Your task to perform on an android device: Go to display settings Image 0: 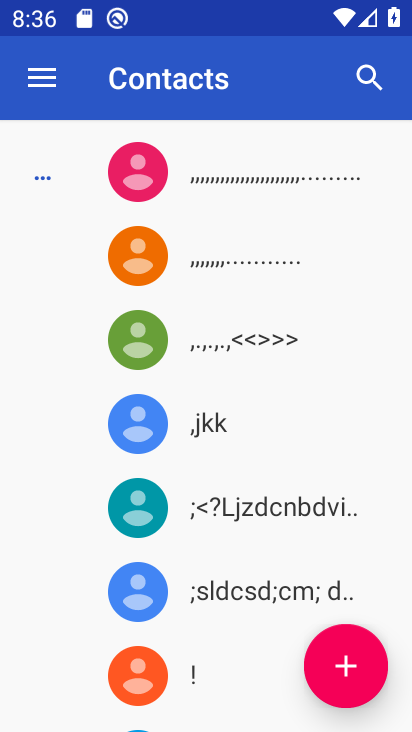
Step 0: press home button
Your task to perform on an android device: Go to display settings Image 1: 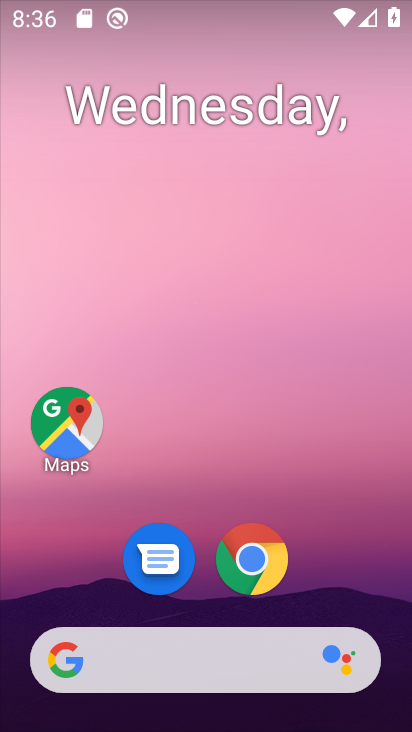
Step 1: drag from (380, 573) to (366, 209)
Your task to perform on an android device: Go to display settings Image 2: 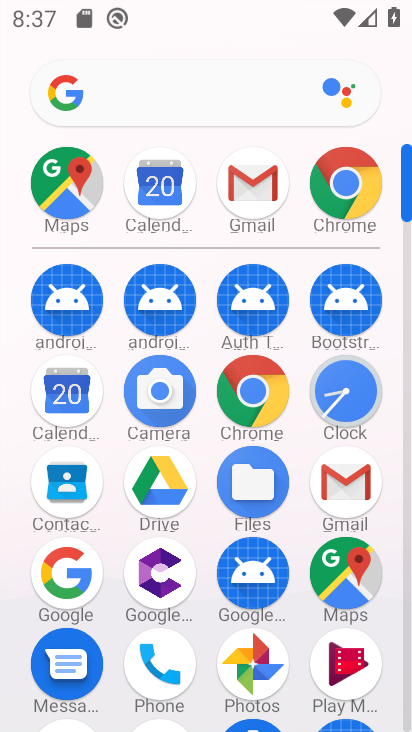
Step 2: drag from (292, 611) to (314, 373)
Your task to perform on an android device: Go to display settings Image 3: 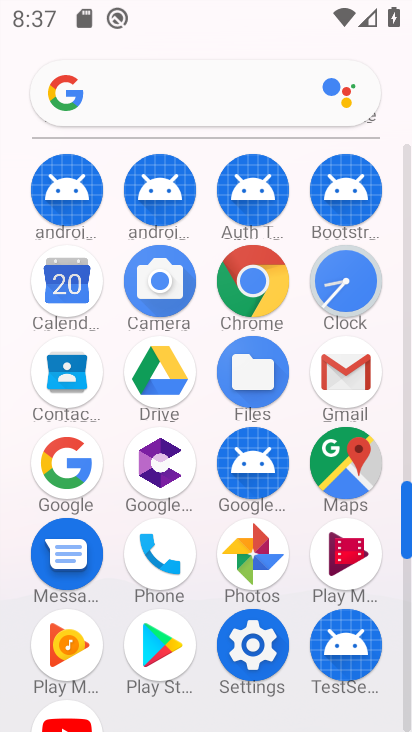
Step 3: click (233, 640)
Your task to perform on an android device: Go to display settings Image 4: 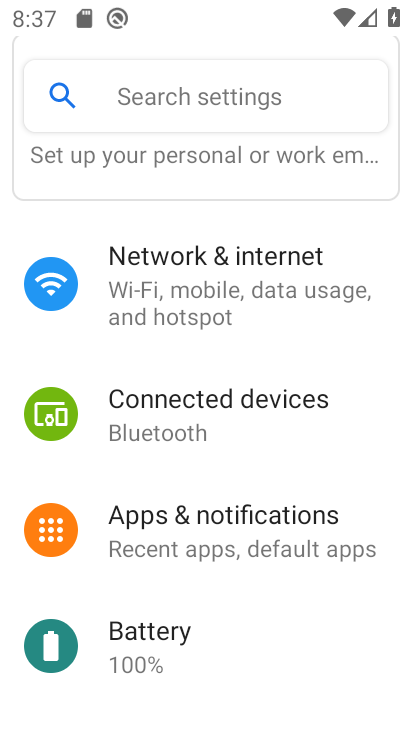
Step 4: drag from (260, 580) to (290, 322)
Your task to perform on an android device: Go to display settings Image 5: 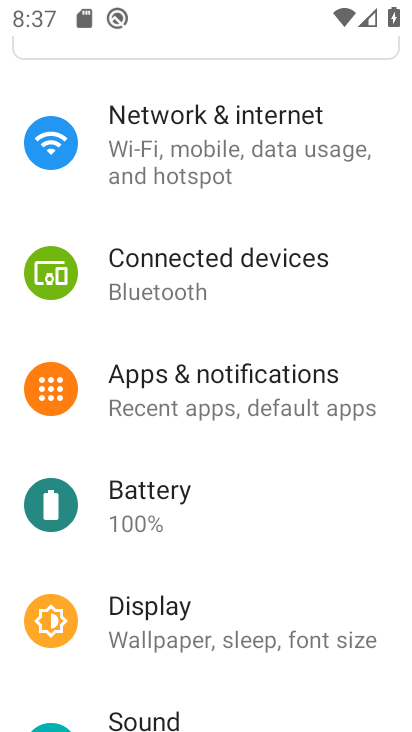
Step 5: click (215, 633)
Your task to perform on an android device: Go to display settings Image 6: 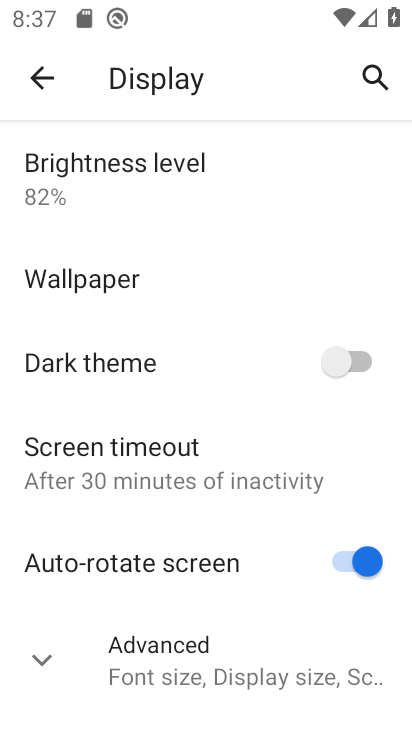
Step 6: task complete